Your task to perform on an android device: uninstall "McDonald's" Image 0: 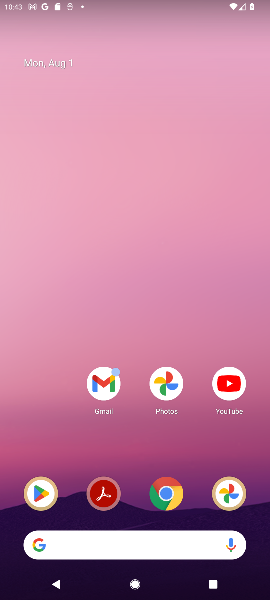
Step 0: drag from (83, 514) to (94, 4)
Your task to perform on an android device: uninstall "McDonald's" Image 1: 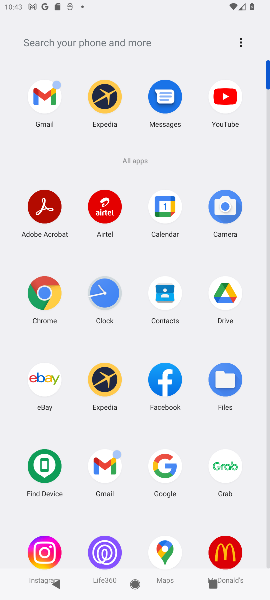
Step 1: click (234, 554)
Your task to perform on an android device: uninstall "McDonald's" Image 2: 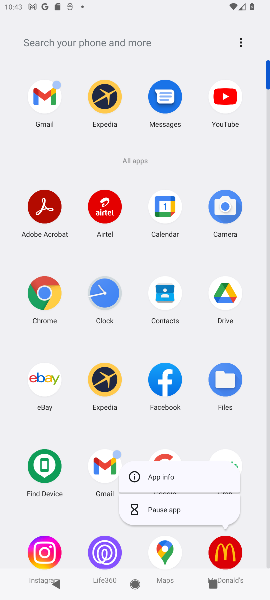
Step 2: click (166, 478)
Your task to perform on an android device: uninstall "McDonald's" Image 3: 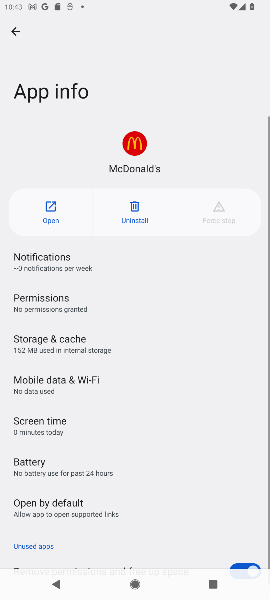
Step 3: click (145, 213)
Your task to perform on an android device: uninstall "McDonald's" Image 4: 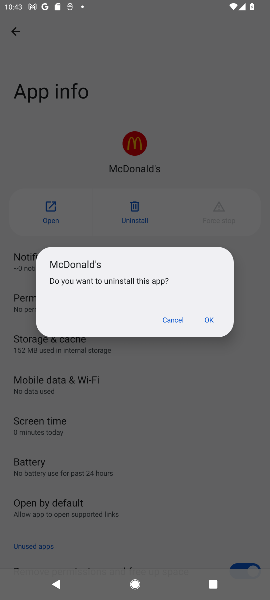
Step 4: click (207, 321)
Your task to perform on an android device: uninstall "McDonald's" Image 5: 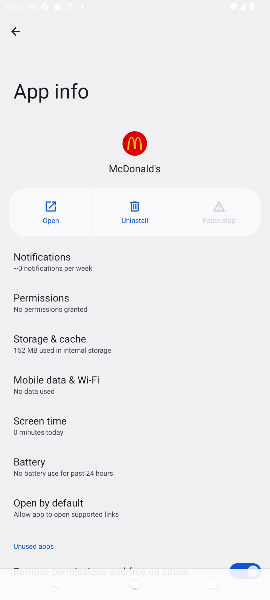
Step 5: task complete